Your task to perform on an android device: Open eBay Image 0: 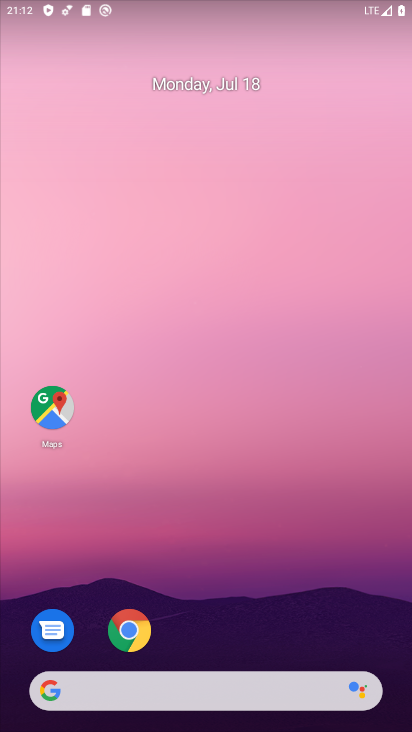
Step 0: click (134, 627)
Your task to perform on an android device: Open eBay Image 1: 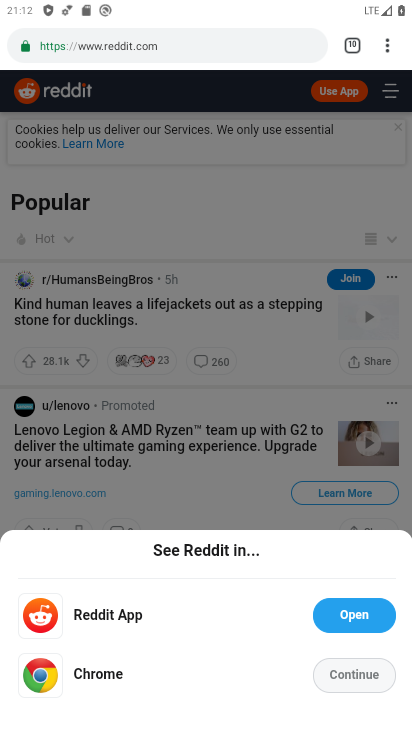
Step 1: click (389, 38)
Your task to perform on an android device: Open eBay Image 2: 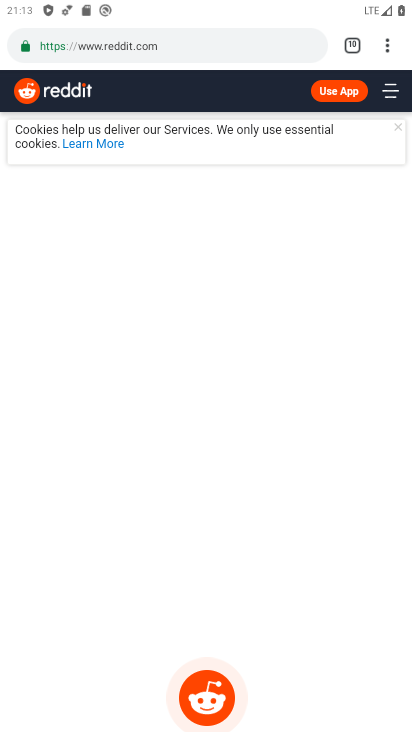
Step 2: click (396, 52)
Your task to perform on an android device: Open eBay Image 3: 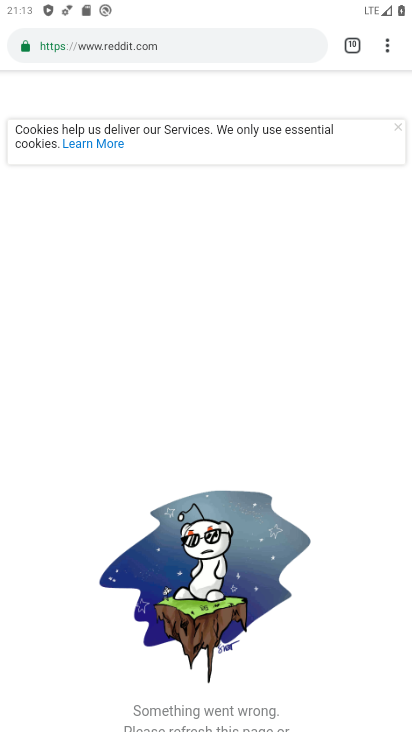
Step 3: click (383, 40)
Your task to perform on an android device: Open eBay Image 4: 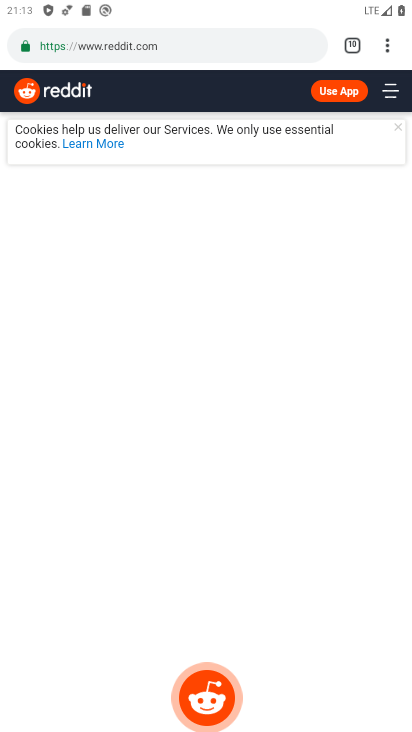
Step 4: click (389, 54)
Your task to perform on an android device: Open eBay Image 5: 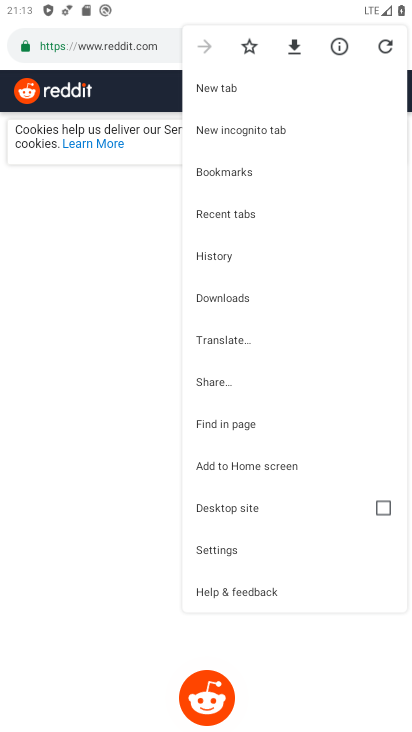
Step 5: click (247, 80)
Your task to perform on an android device: Open eBay Image 6: 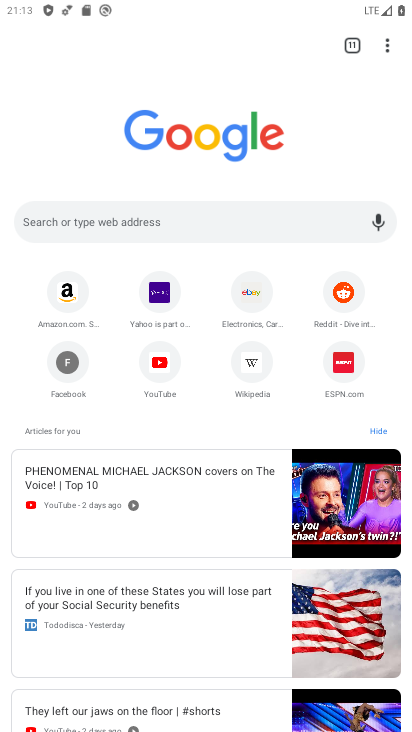
Step 6: click (259, 286)
Your task to perform on an android device: Open eBay Image 7: 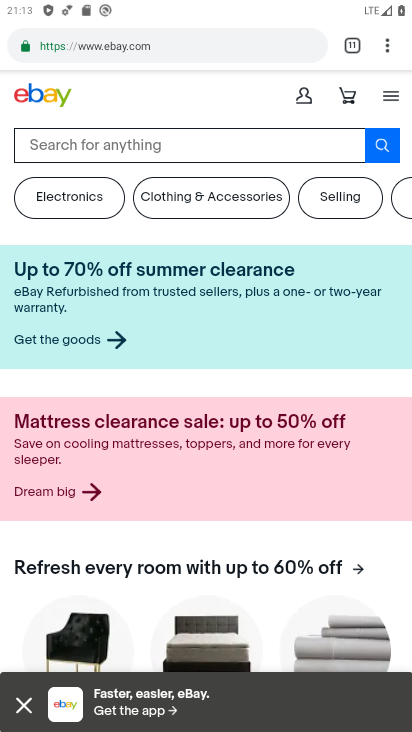
Step 7: task complete